Your task to perform on an android device: clear all cookies in the chrome app Image 0: 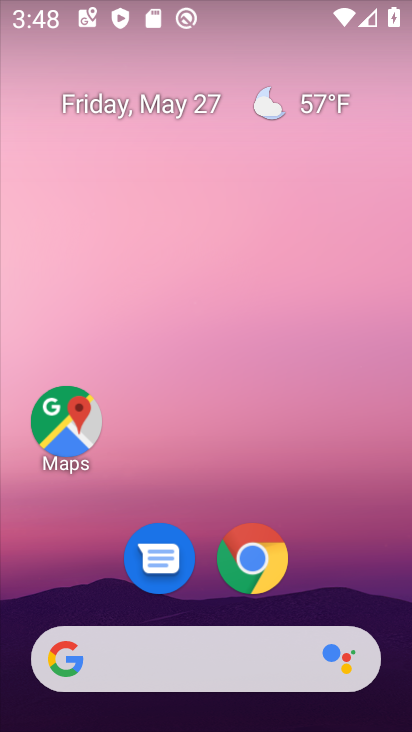
Step 0: drag from (369, 583) to (296, 138)
Your task to perform on an android device: clear all cookies in the chrome app Image 1: 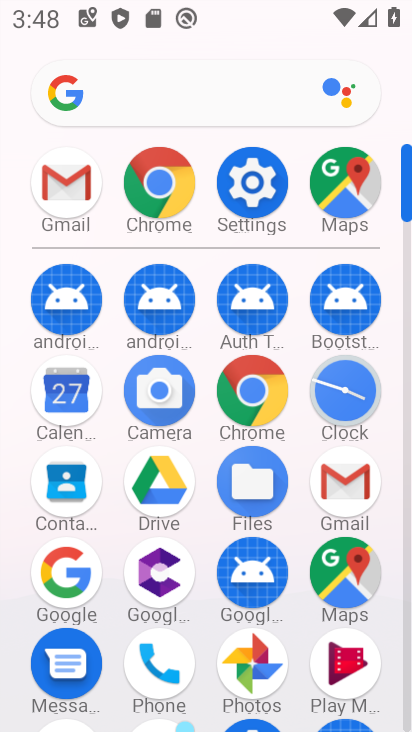
Step 1: click (127, 172)
Your task to perform on an android device: clear all cookies in the chrome app Image 2: 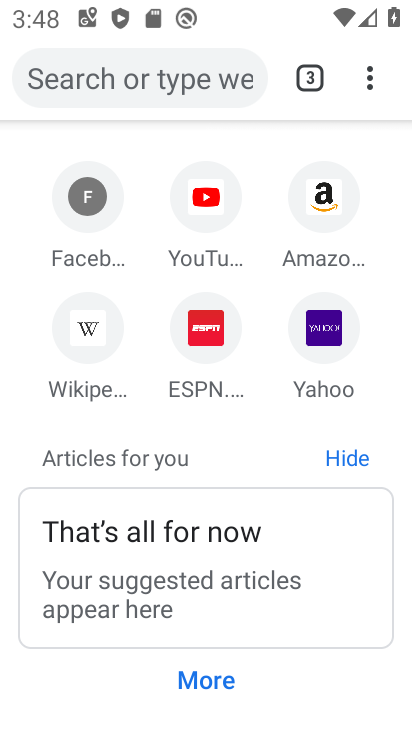
Step 2: click (380, 73)
Your task to perform on an android device: clear all cookies in the chrome app Image 3: 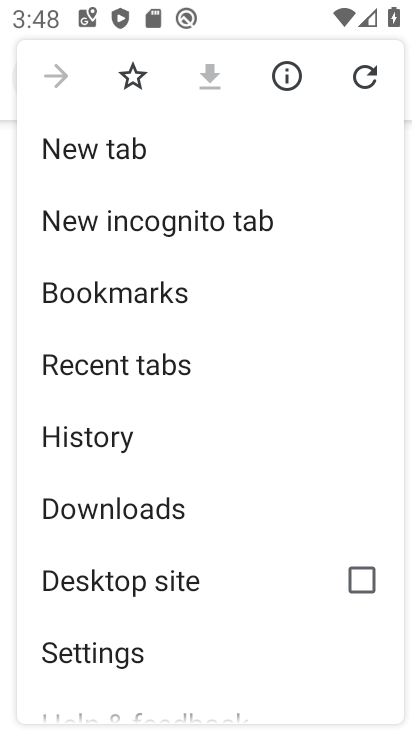
Step 3: click (226, 656)
Your task to perform on an android device: clear all cookies in the chrome app Image 4: 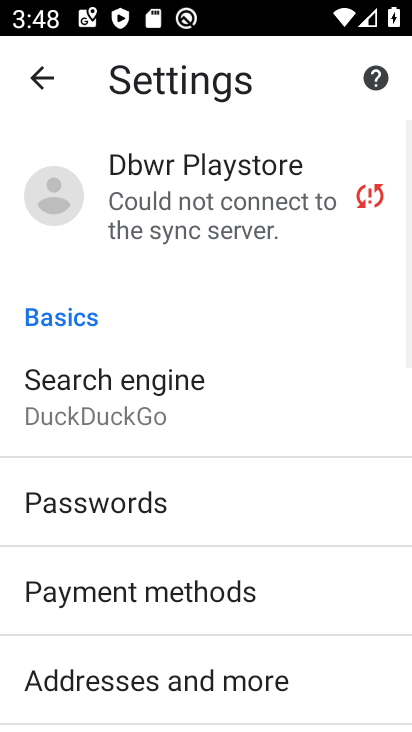
Step 4: drag from (225, 691) to (217, 83)
Your task to perform on an android device: clear all cookies in the chrome app Image 5: 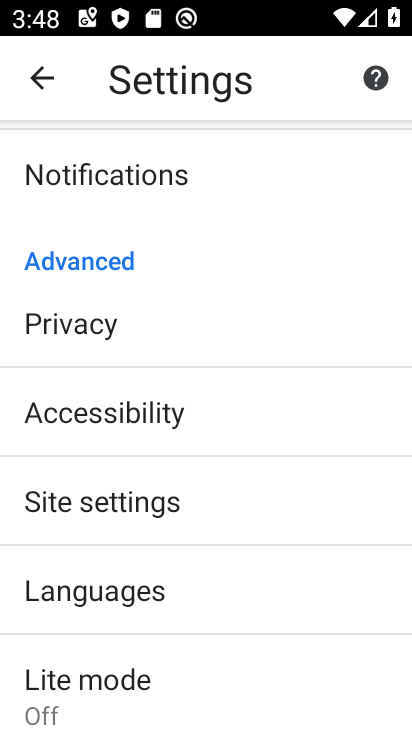
Step 5: click (211, 515)
Your task to perform on an android device: clear all cookies in the chrome app Image 6: 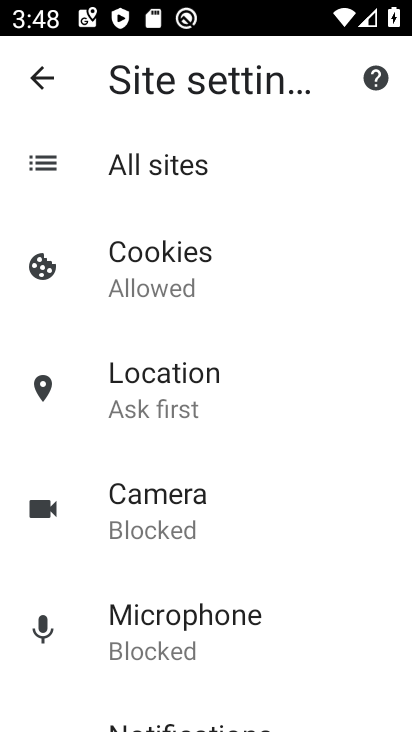
Step 6: click (196, 407)
Your task to perform on an android device: clear all cookies in the chrome app Image 7: 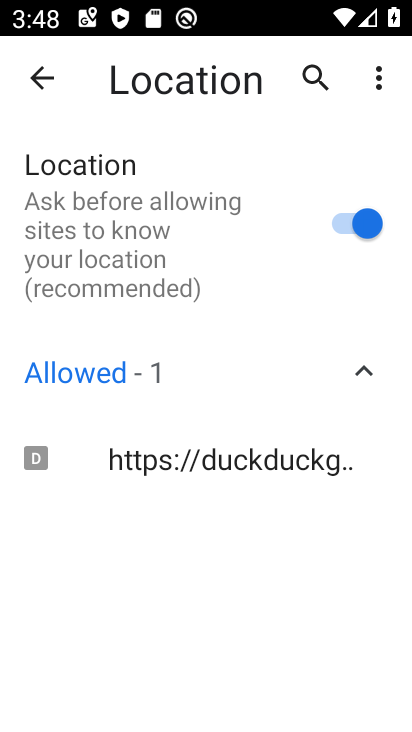
Step 7: task complete